Your task to perform on an android device: What is the news today? Image 0: 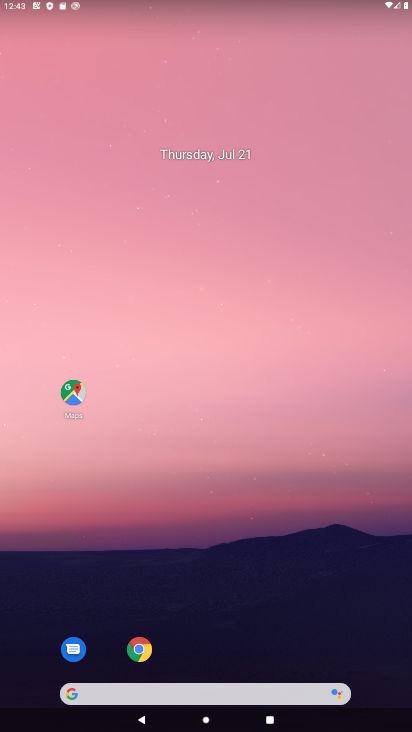
Step 0: drag from (4, 266) to (410, 243)
Your task to perform on an android device: What is the news today? Image 1: 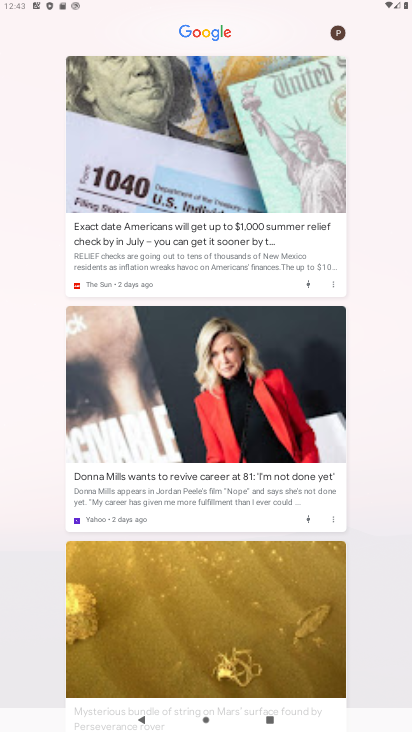
Step 1: task complete